Your task to perform on an android device: What's on my calendar today? Image 0: 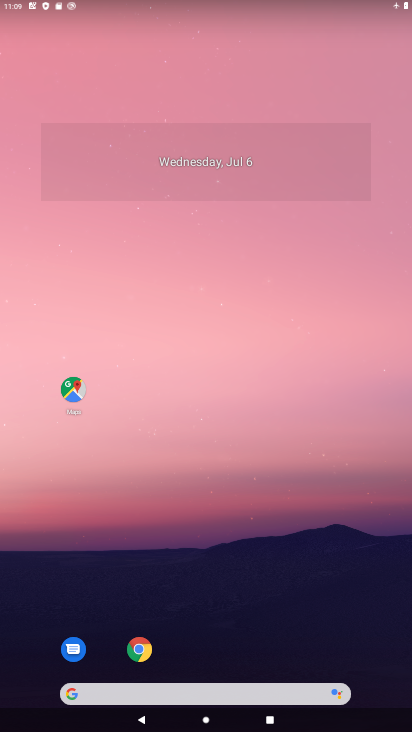
Step 0: drag from (380, 652) to (263, 9)
Your task to perform on an android device: What's on my calendar today? Image 1: 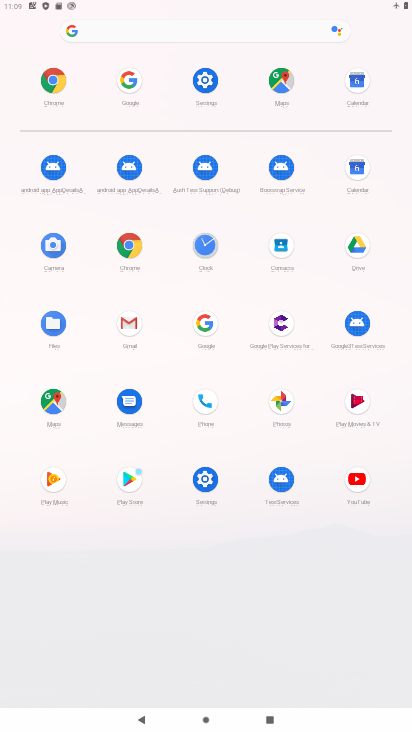
Step 1: click (358, 177)
Your task to perform on an android device: What's on my calendar today? Image 2: 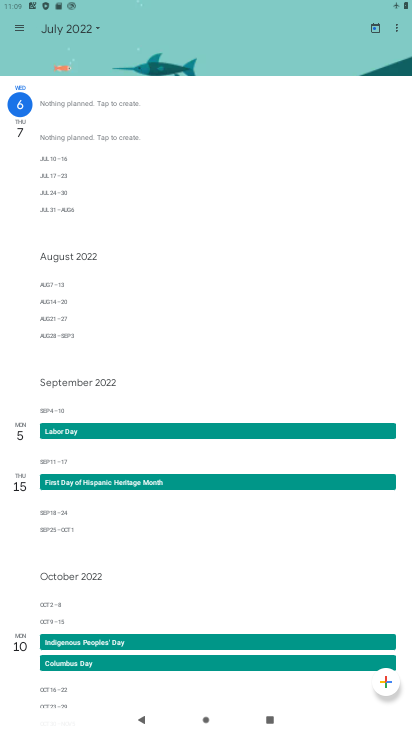
Step 2: click (69, 28)
Your task to perform on an android device: What's on my calendar today? Image 3: 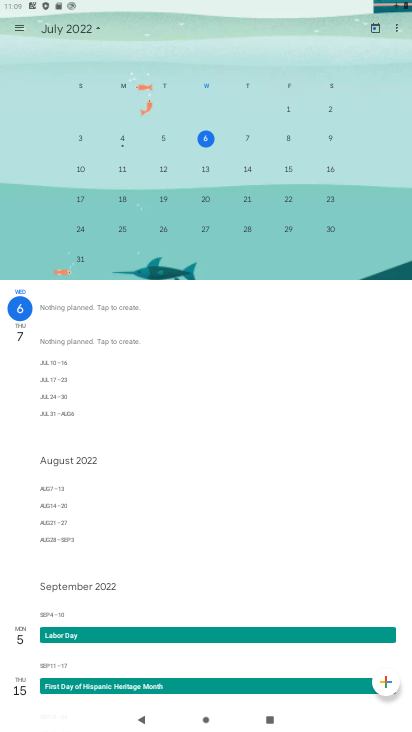
Step 3: click (248, 138)
Your task to perform on an android device: What's on my calendar today? Image 4: 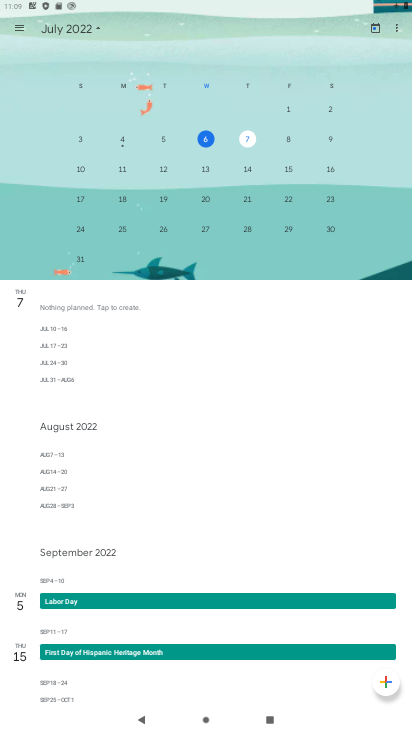
Step 4: click (80, 348)
Your task to perform on an android device: What's on my calendar today? Image 5: 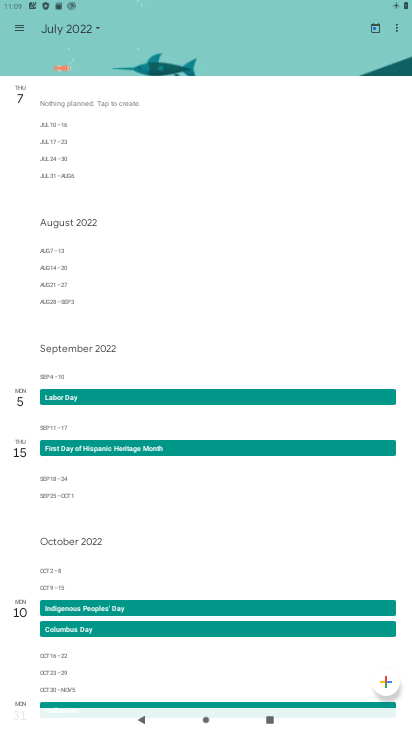
Step 5: task complete